Your task to perform on an android device: toggle show notifications on the lock screen Image 0: 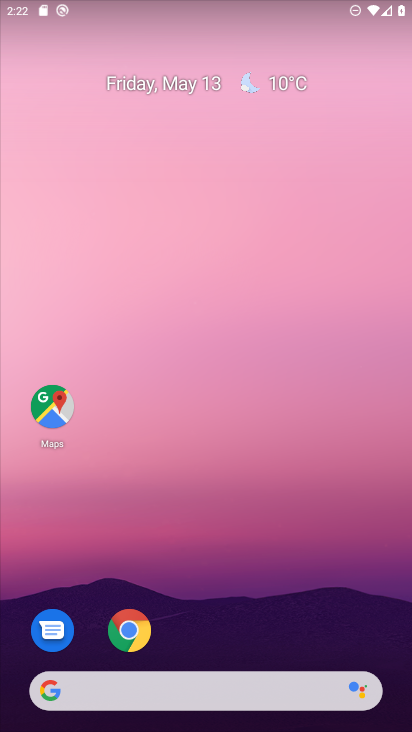
Step 0: drag from (211, 636) to (223, 2)
Your task to perform on an android device: toggle show notifications on the lock screen Image 1: 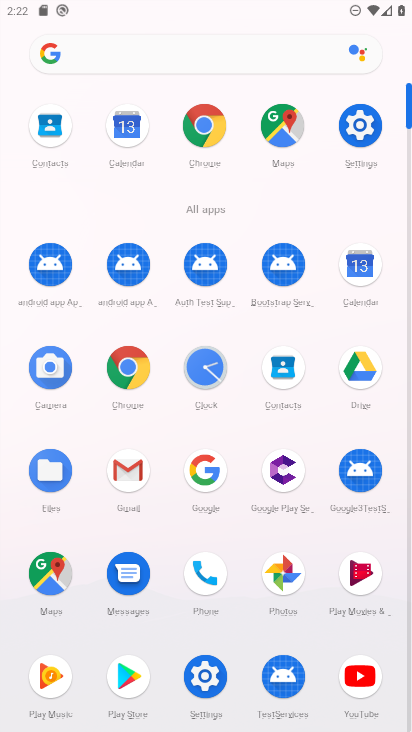
Step 1: click (358, 125)
Your task to perform on an android device: toggle show notifications on the lock screen Image 2: 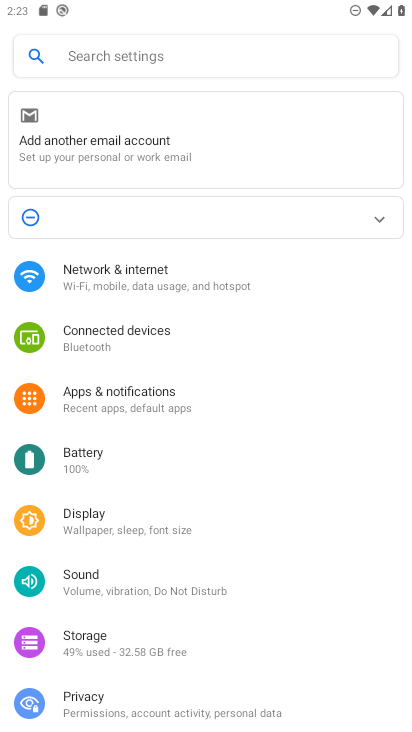
Step 2: click (140, 396)
Your task to perform on an android device: toggle show notifications on the lock screen Image 3: 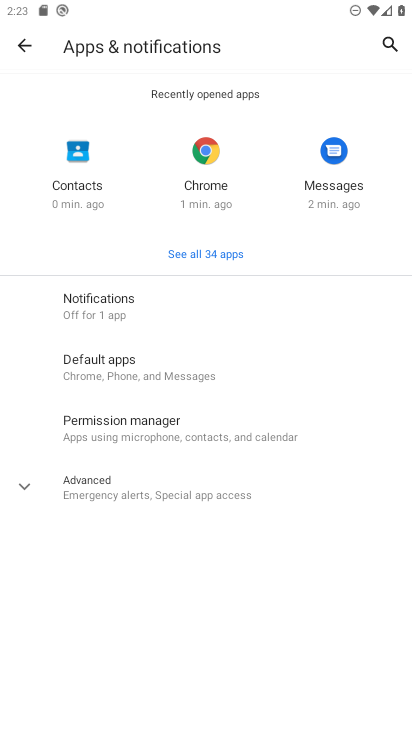
Step 3: click (151, 303)
Your task to perform on an android device: toggle show notifications on the lock screen Image 4: 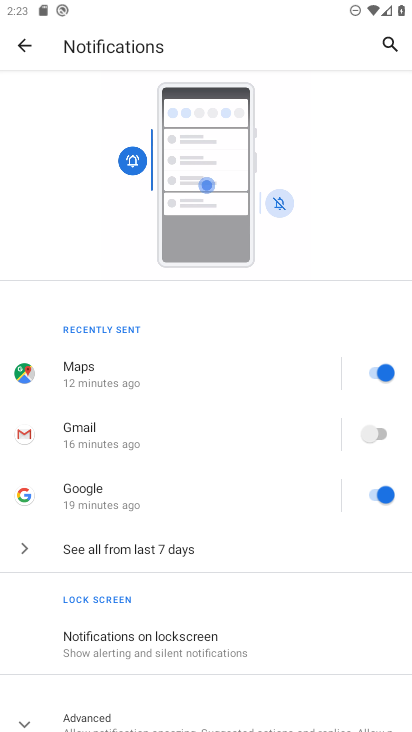
Step 4: click (174, 636)
Your task to perform on an android device: toggle show notifications on the lock screen Image 5: 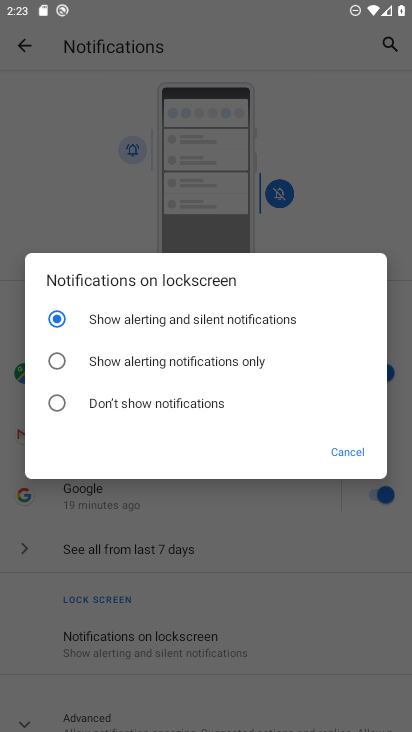
Step 5: click (61, 351)
Your task to perform on an android device: toggle show notifications on the lock screen Image 6: 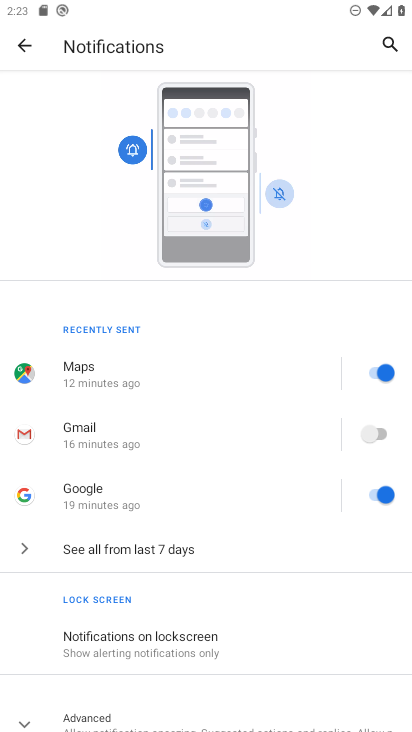
Step 6: task complete